Your task to perform on an android device: turn off sleep mode Image 0: 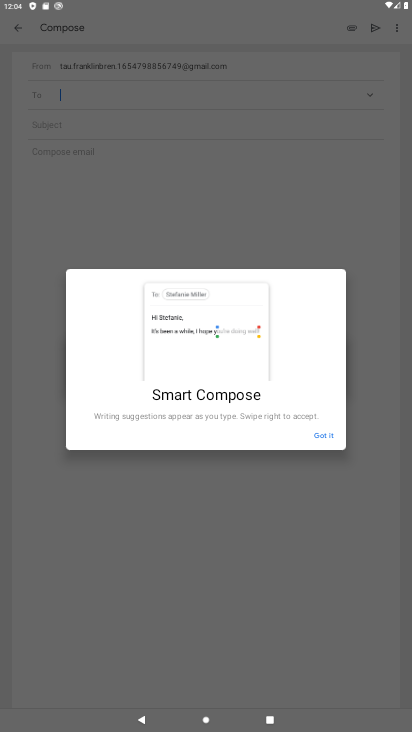
Step 0: press home button
Your task to perform on an android device: turn off sleep mode Image 1: 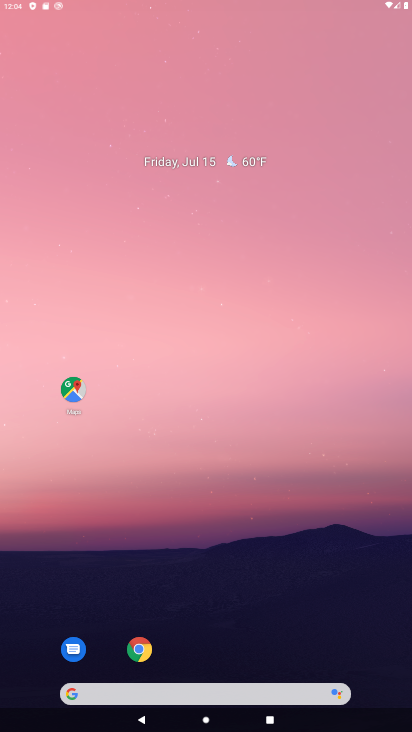
Step 1: drag from (206, 608) to (222, 173)
Your task to perform on an android device: turn off sleep mode Image 2: 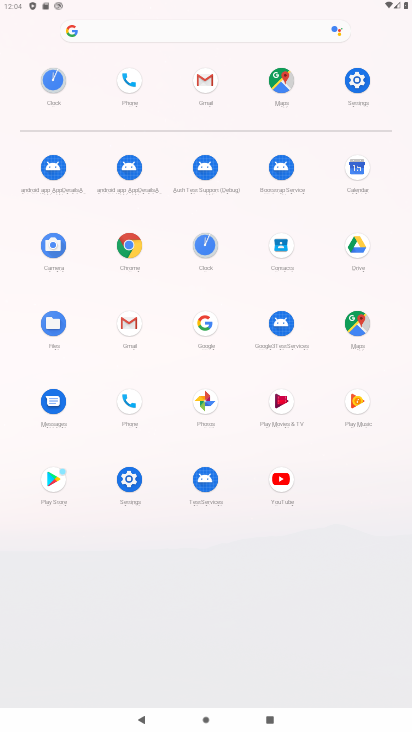
Step 2: click (344, 82)
Your task to perform on an android device: turn off sleep mode Image 3: 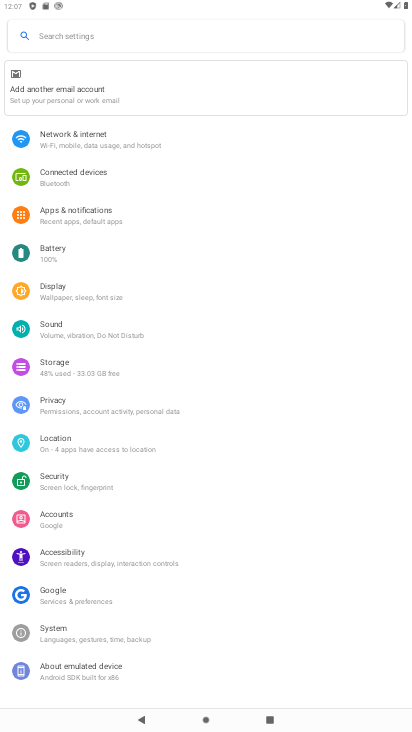
Step 3: task complete